Your task to perform on an android device: toggle data saver in the chrome app Image 0: 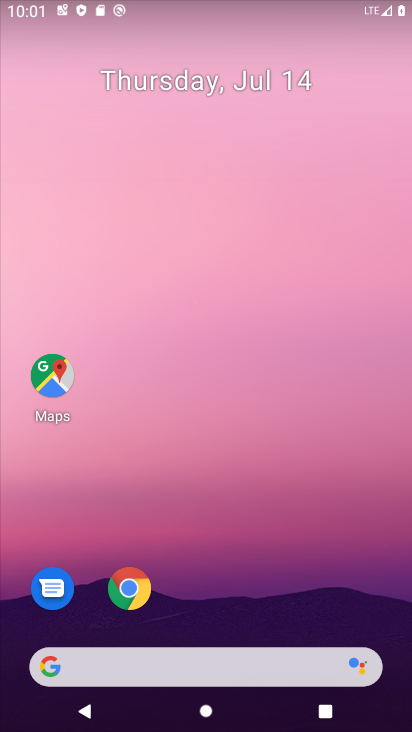
Step 0: drag from (396, 675) to (218, 25)
Your task to perform on an android device: toggle data saver in the chrome app Image 1: 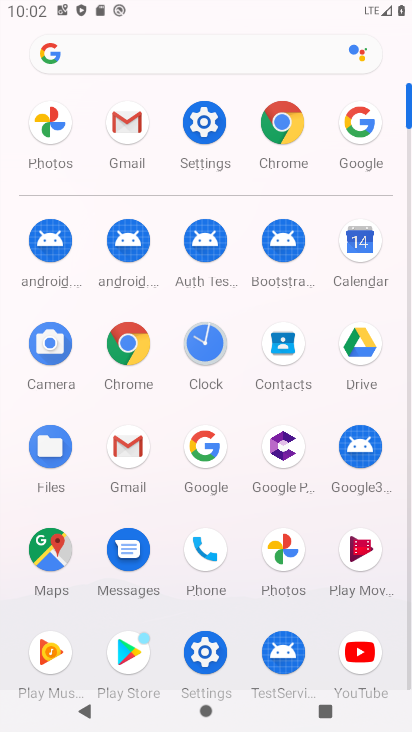
Step 1: click (136, 330)
Your task to perform on an android device: toggle data saver in the chrome app Image 2: 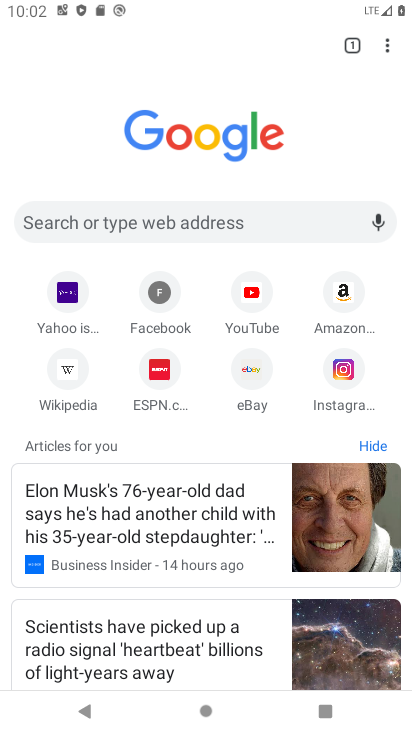
Step 2: click (391, 35)
Your task to perform on an android device: toggle data saver in the chrome app Image 3: 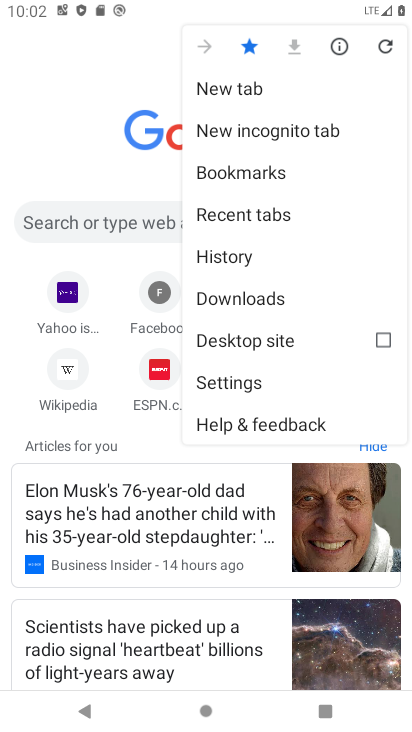
Step 3: click (243, 382)
Your task to perform on an android device: toggle data saver in the chrome app Image 4: 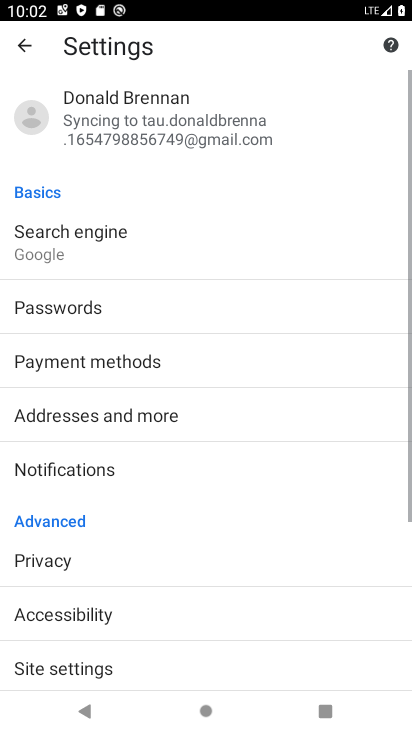
Step 4: drag from (79, 671) to (127, 166)
Your task to perform on an android device: toggle data saver in the chrome app Image 5: 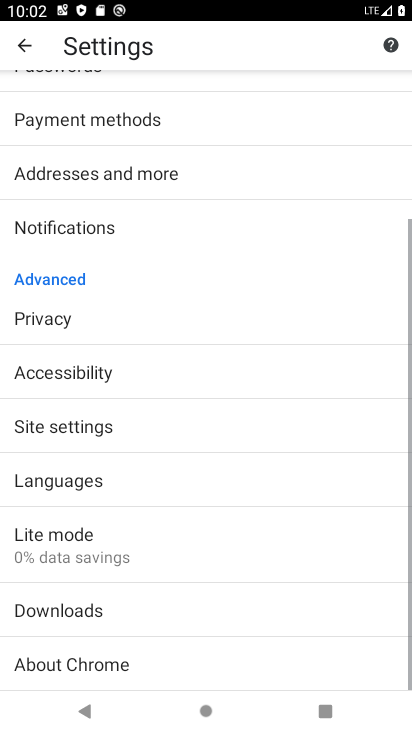
Step 5: click (90, 533)
Your task to perform on an android device: toggle data saver in the chrome app Image 6: 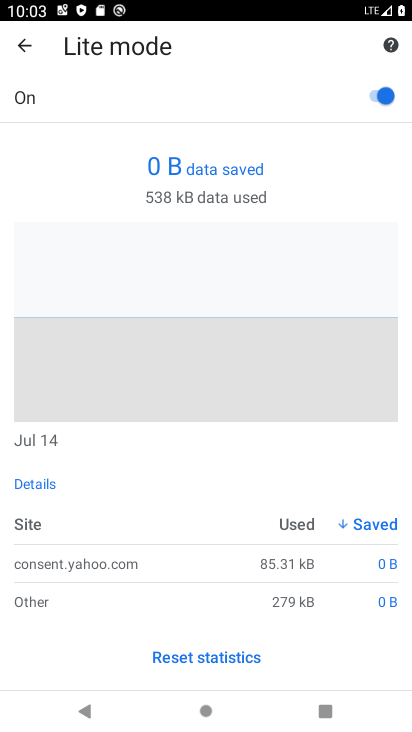
Step 6: click (384, 91)
Your task to perform on an android device: toggle data saver in the chrome app Image 7: 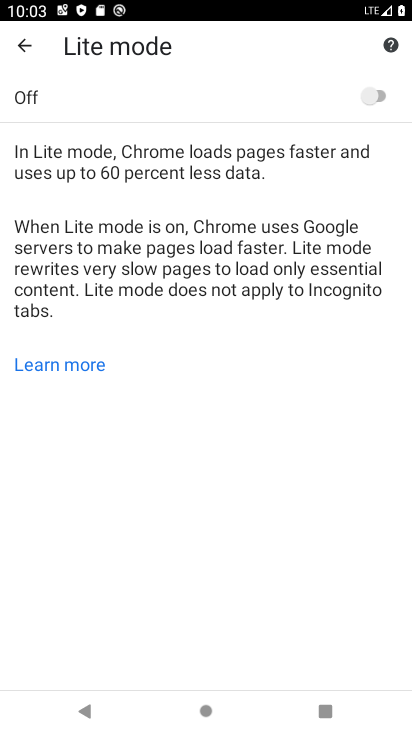
Step 7: task complete